Your task to perform on an android device: Go to notification settings Image 0: 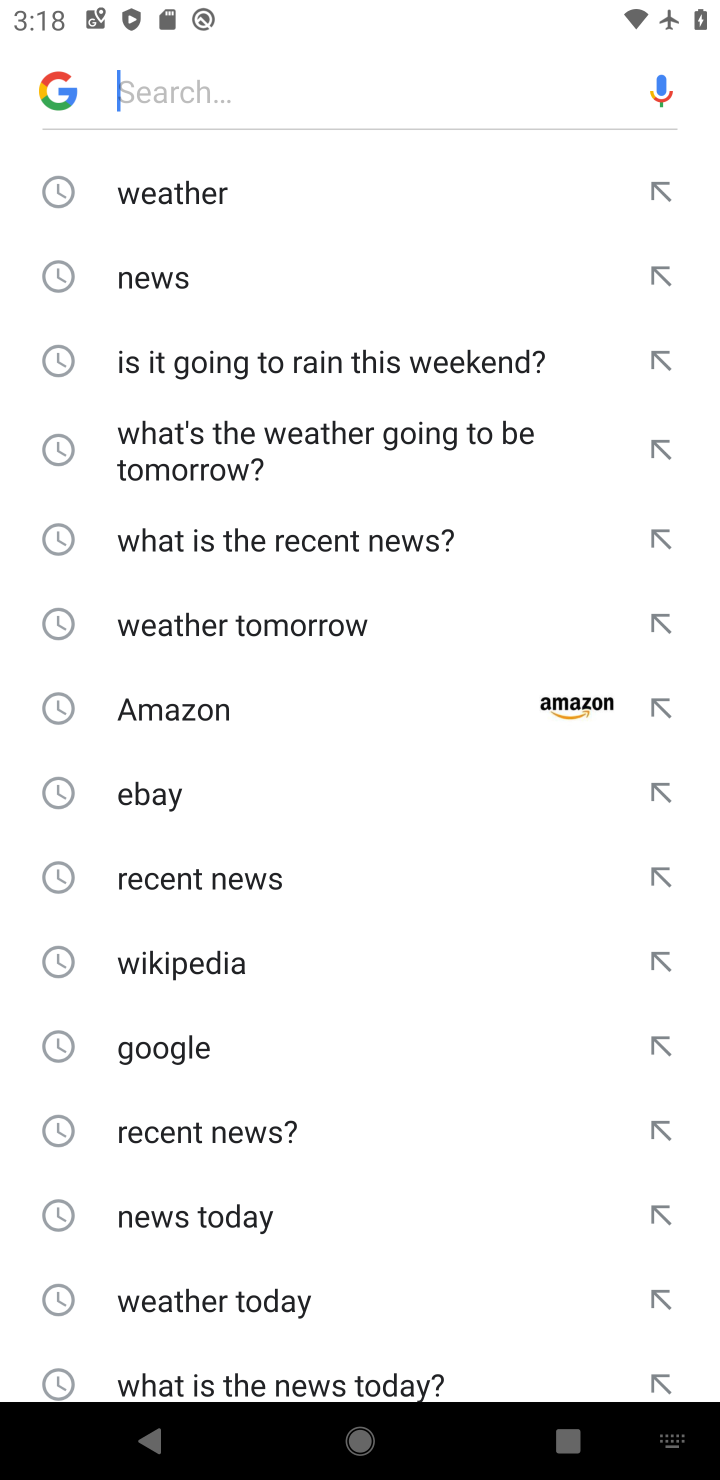
Step 0: press home button
Your task to perform on an android device: Go to notification settings Image 1: 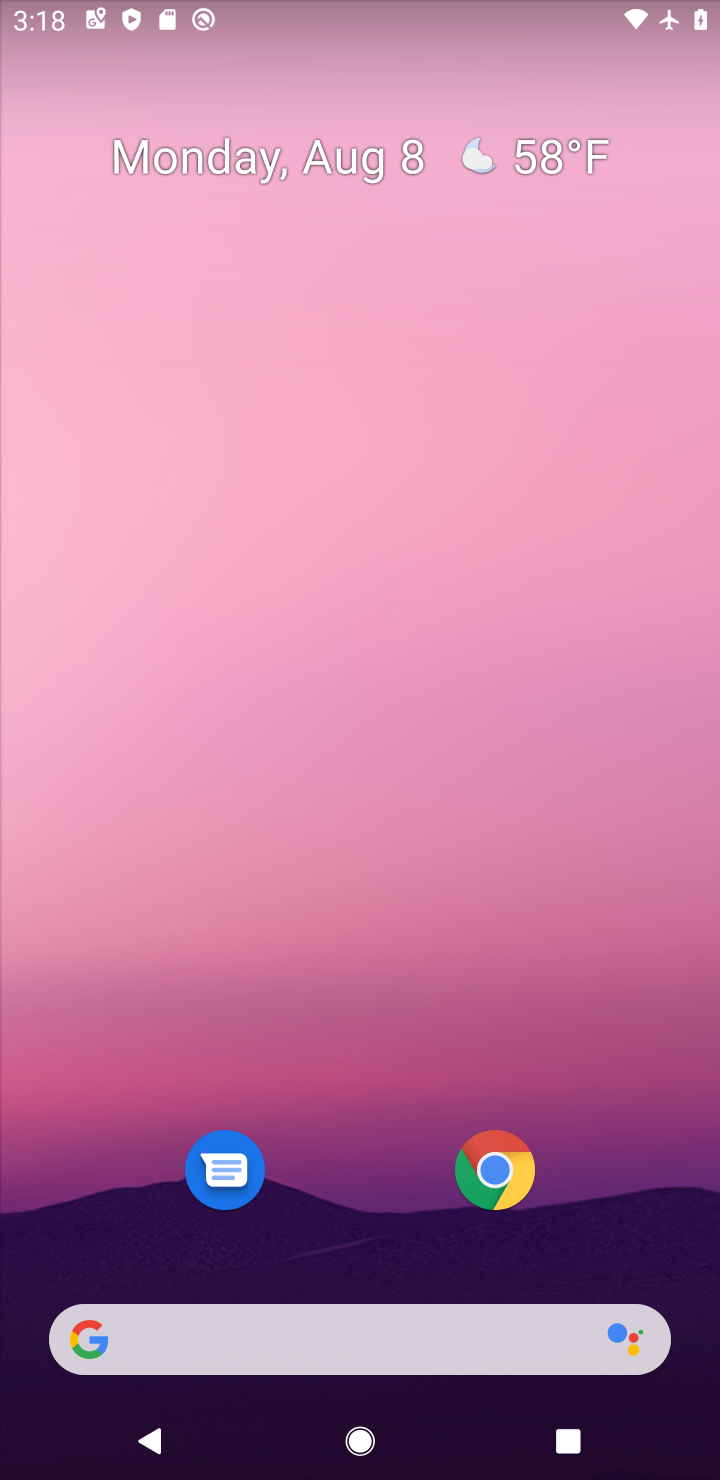
Step 1: drag from (323, 1076) to (357, 444)
Your task to perform on an android device: Go to notification settings Image 2: 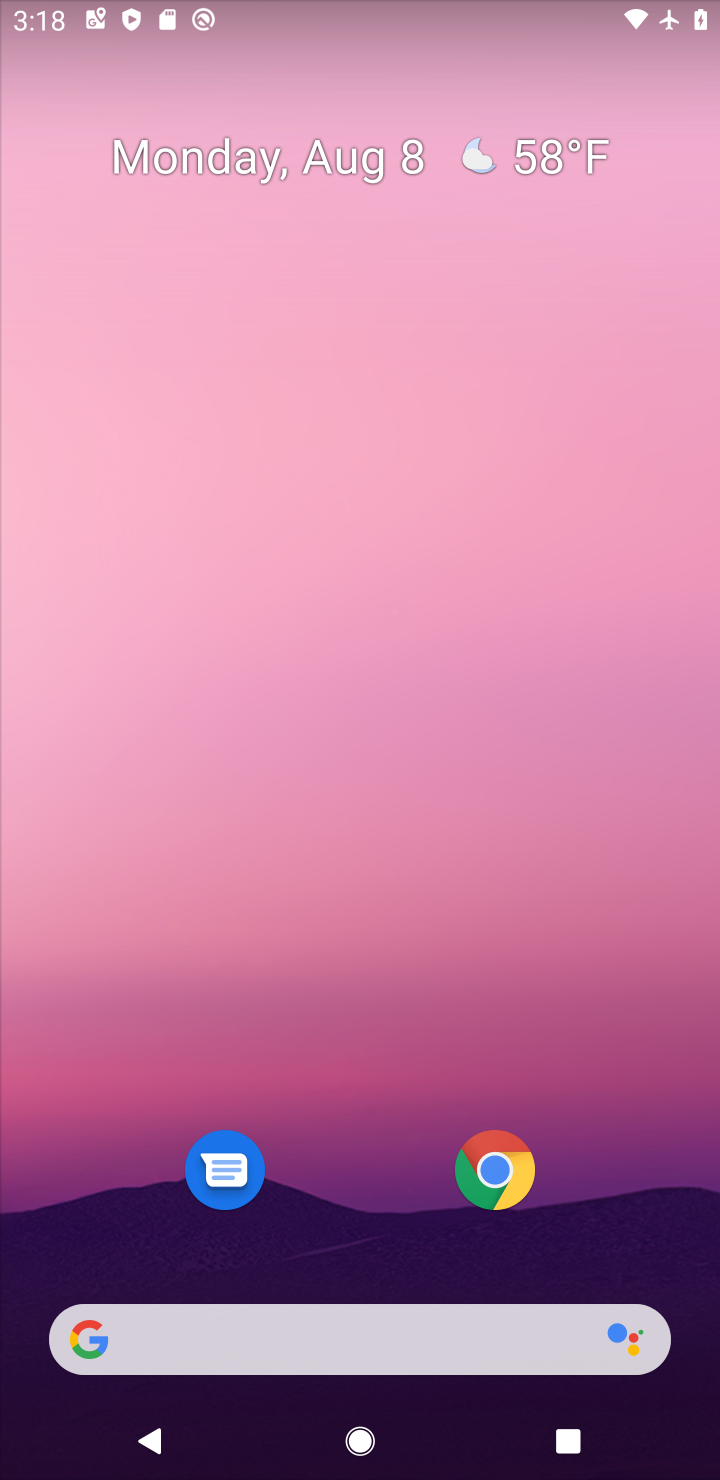
Step 2: drag from (344, 1028) to (398, 507)
Your task to perform on an android device: Go to notification settings Image 3: 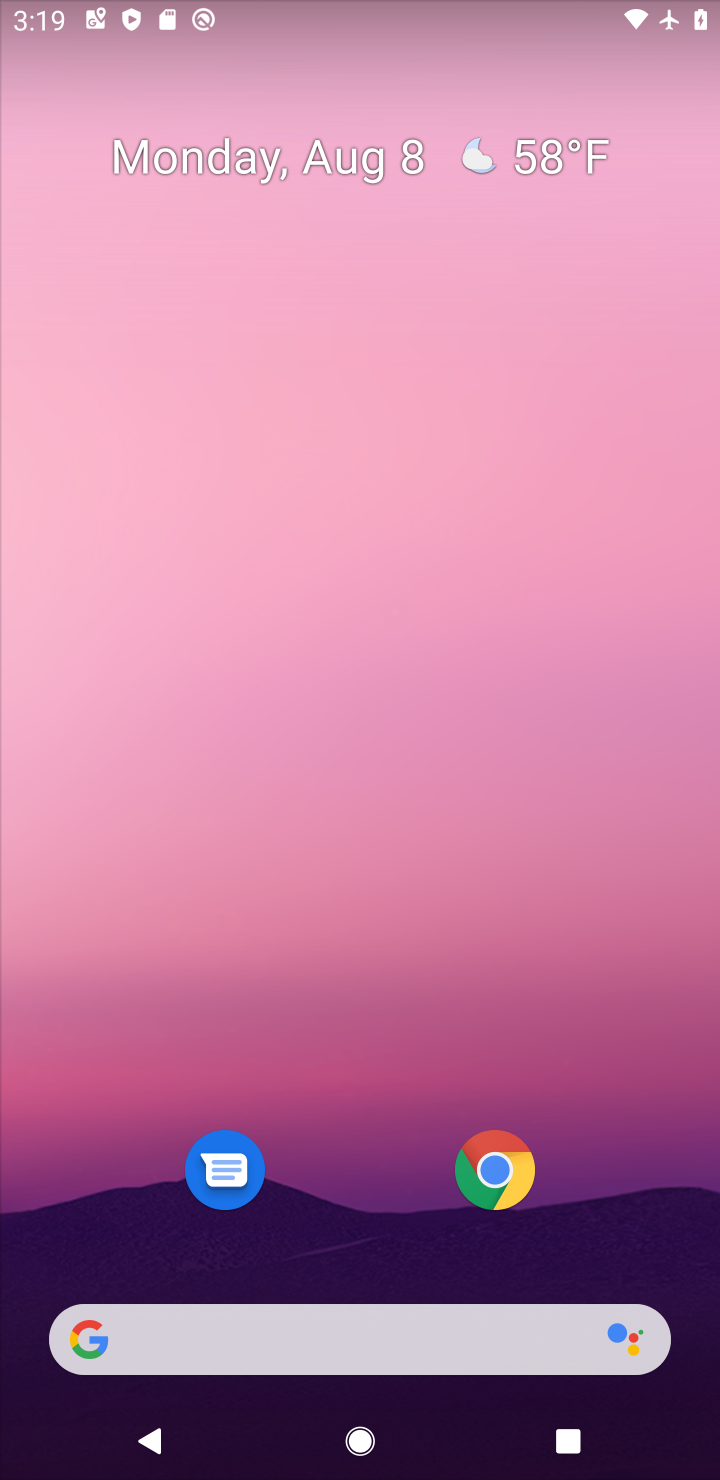
Step 3: drag from (369, 1150) to (369, 321)
Your task to perform on an android device: Go to notification settings Image 4: 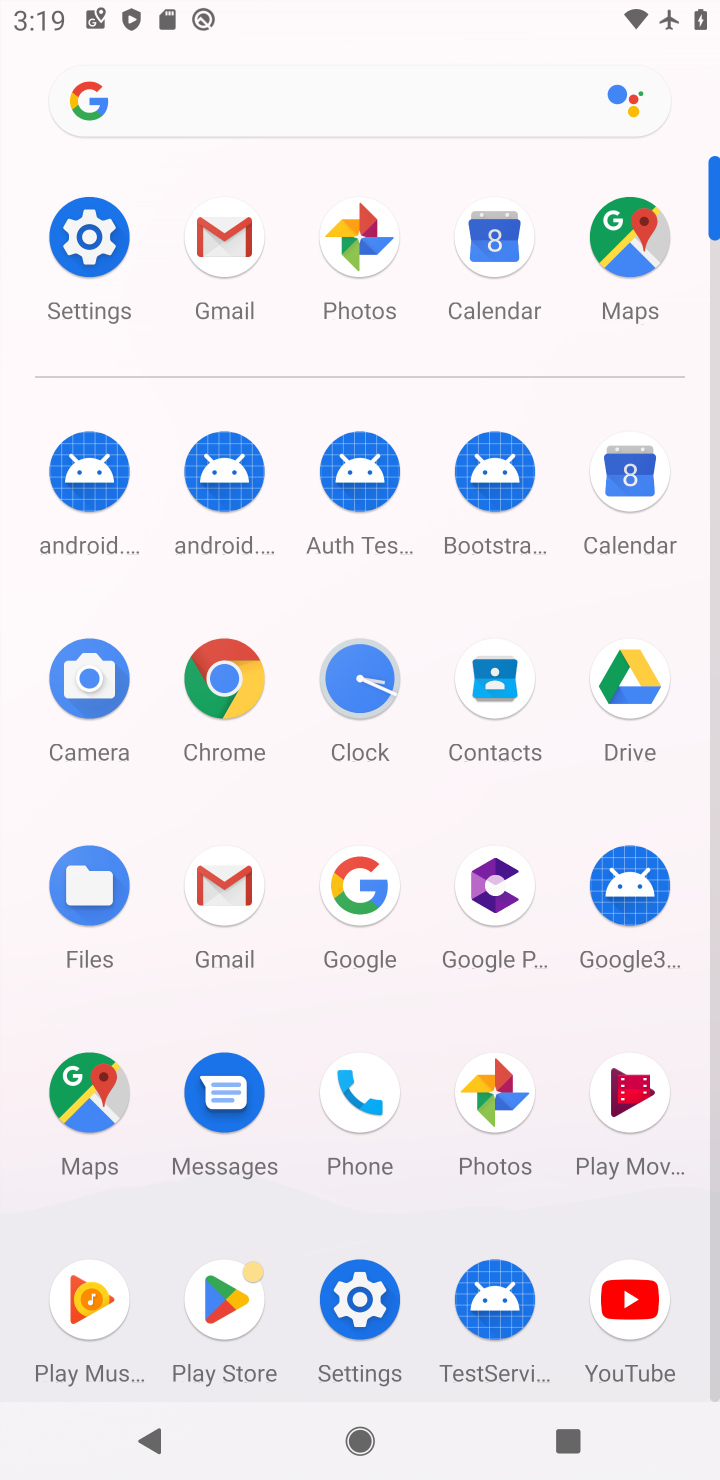
Step 4: click (79, 231)
Your task to perform on an android device: Go to notification settings Image 5: 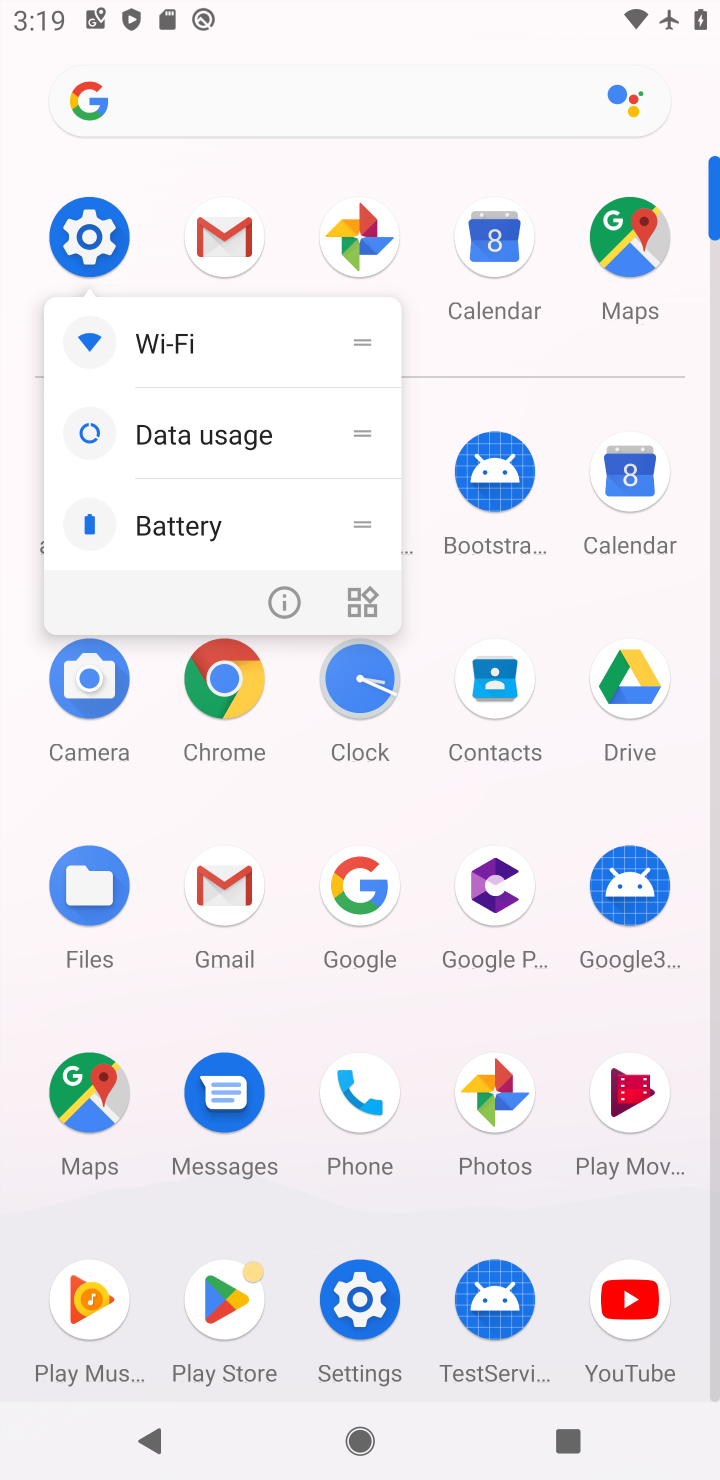
Step 5: click (71, 230)
Your task to perform on an android device: Go to notification settings Image 6: 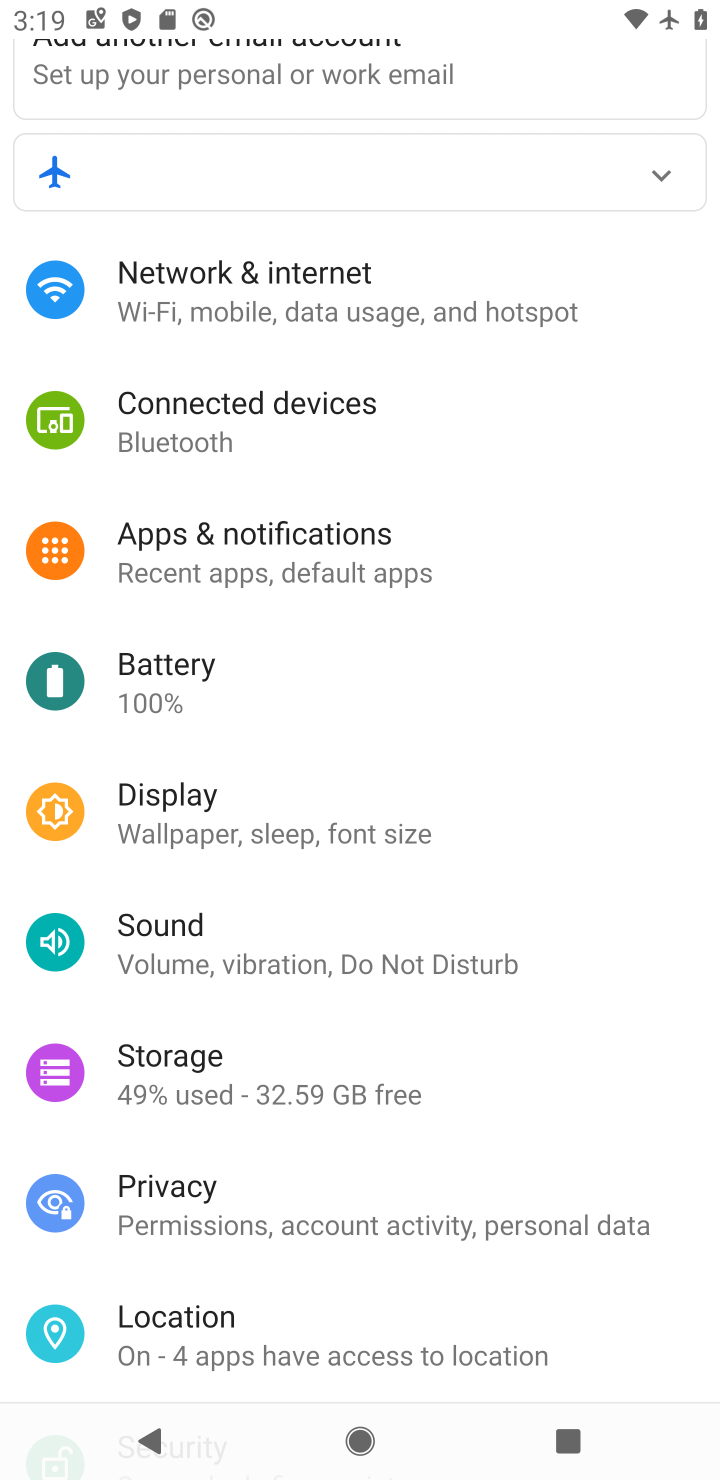
Step 6: click (332, 552)
Your task to perform on an android device: Go to notification settings Image 7: 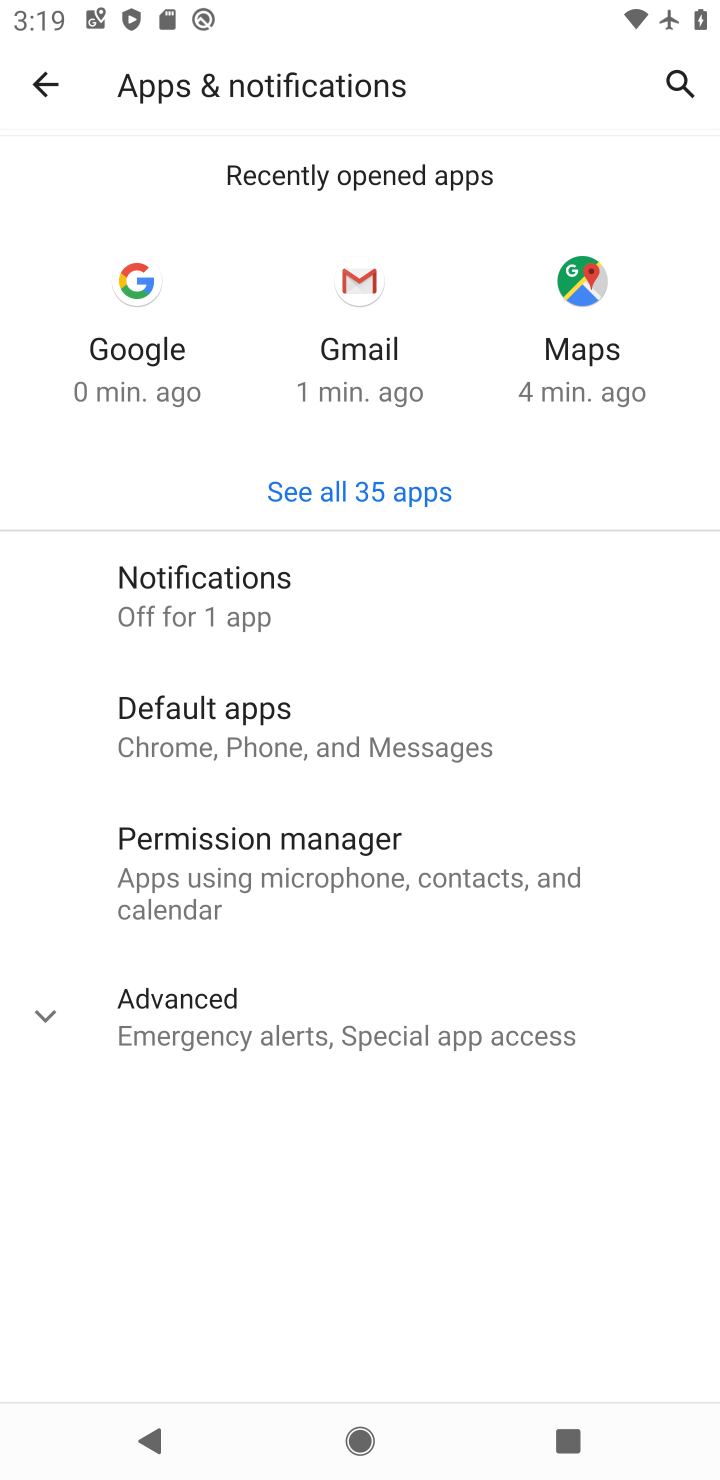
Step 7: click (294, 589)
Your task to perform on an android device: Go to notification settings Image 8: 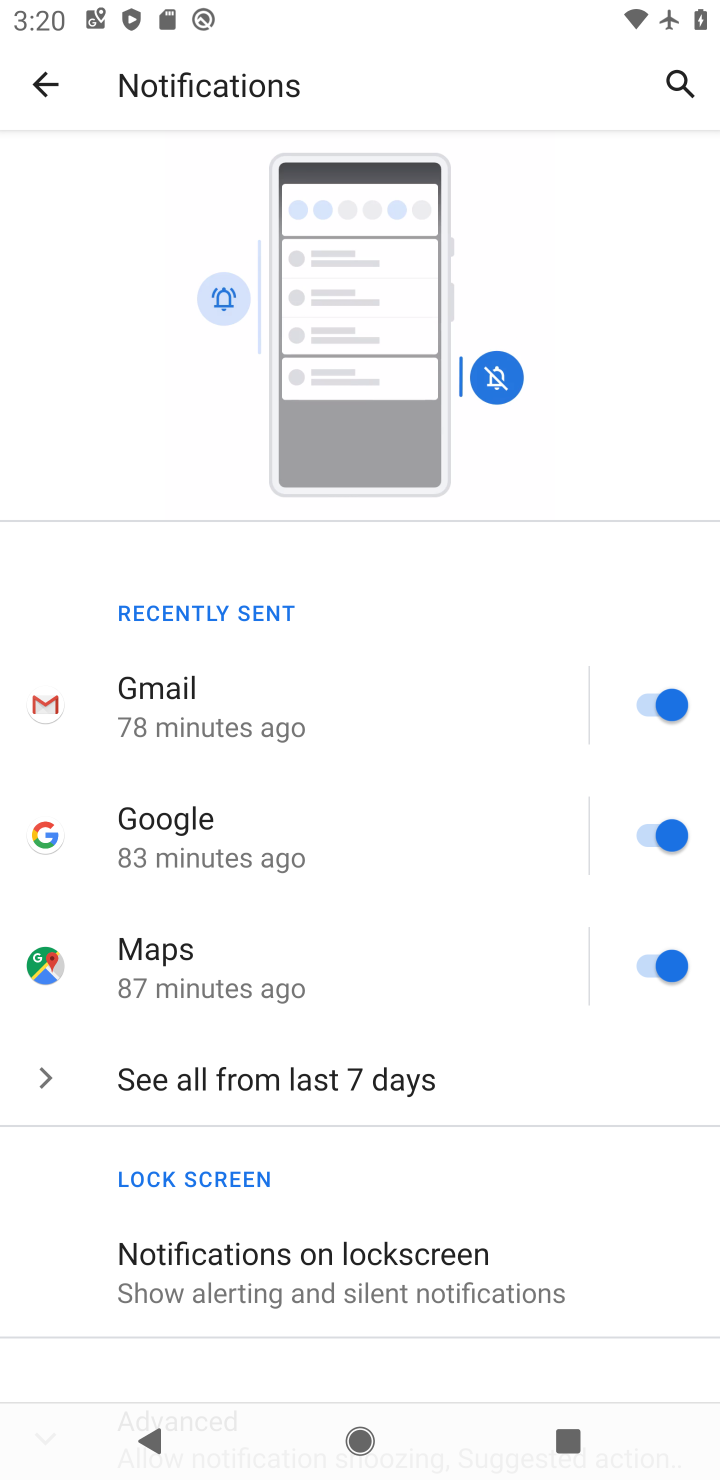
Step 8: task complete